Your task to perform on an android device: turn off notifications in google photos Image 0: 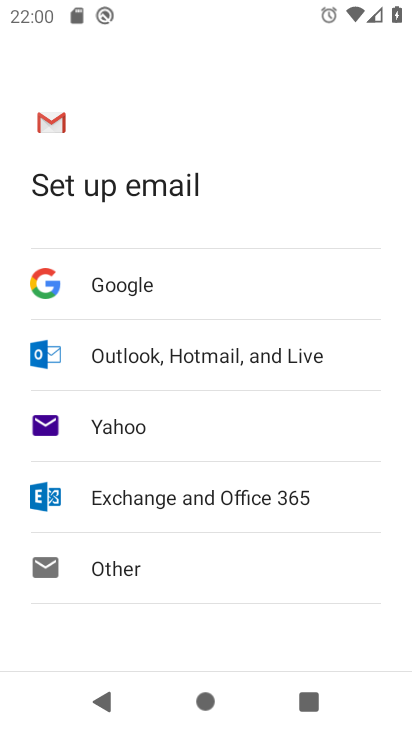
Step 0: press home button
Your task to perform on an android device: turn off notifications in google photos Image 1: 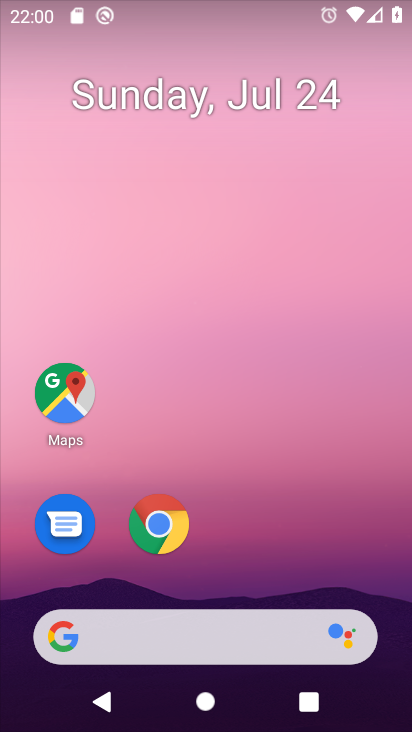
Step 1: drag from (285, 561) to (279, 79)
Your task to perform on an android device: turn off notifications in google photos Image 2: 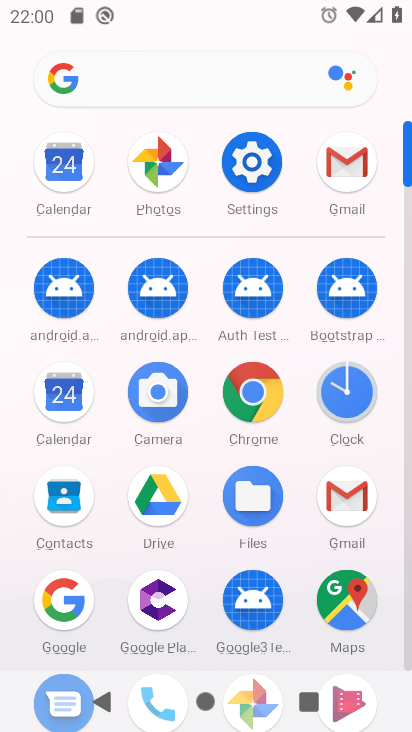
Step 2: click (347, 157)
Your task to perform on an android device: turn off notifications in google photos Image 3: 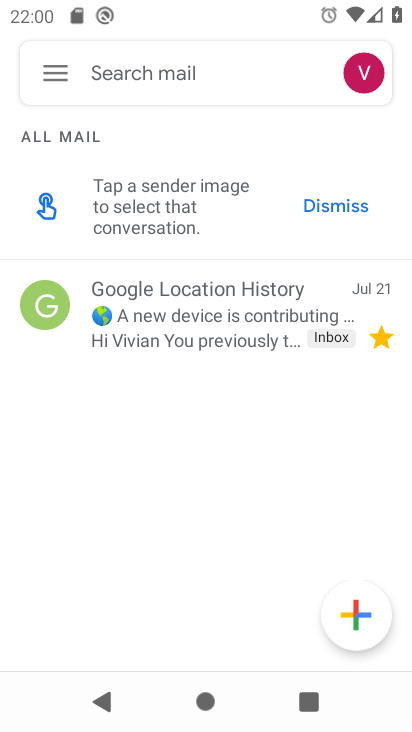
Step 3: click (64, 78)
Your task to perform on an android device: turn off notifications in google photos Image 4: 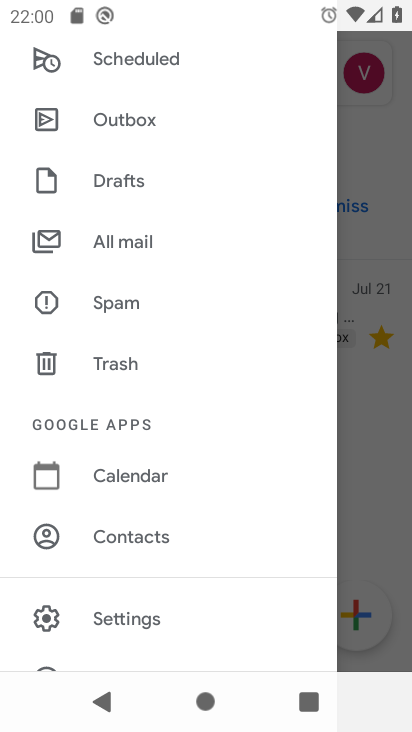
Step 4: click (136, 619)
Your task to perform on an android device: turn off notifications in google photos Image 5: 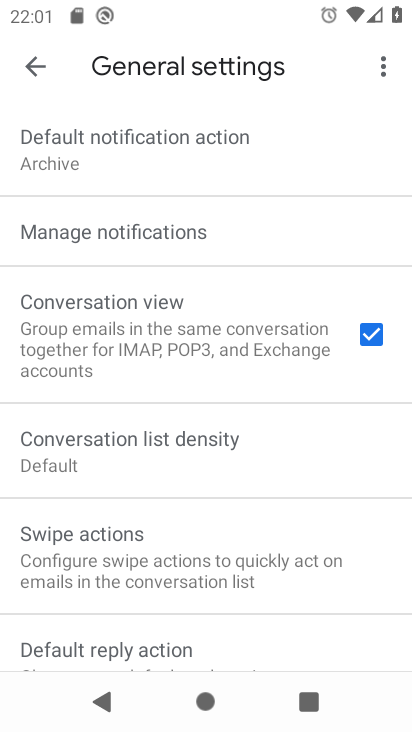
Step 5: press home button
Your task to perform on an android device: turn off notifications in google photos Image 6: 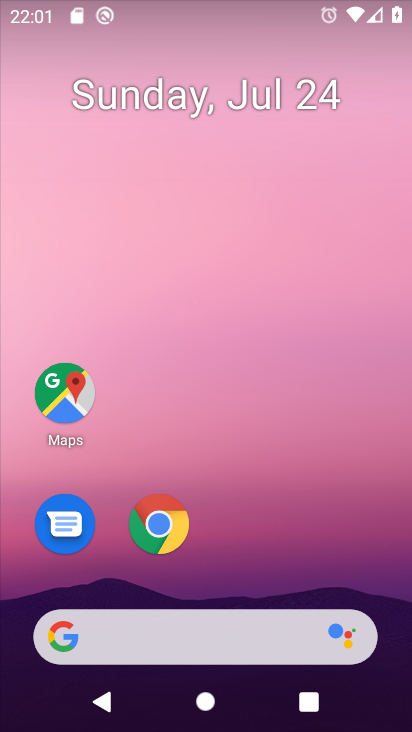
Step 6: drag from (277, 587) to (253, 11)
Your task to perform on an android device: turn off notifications in google photos Image 7: 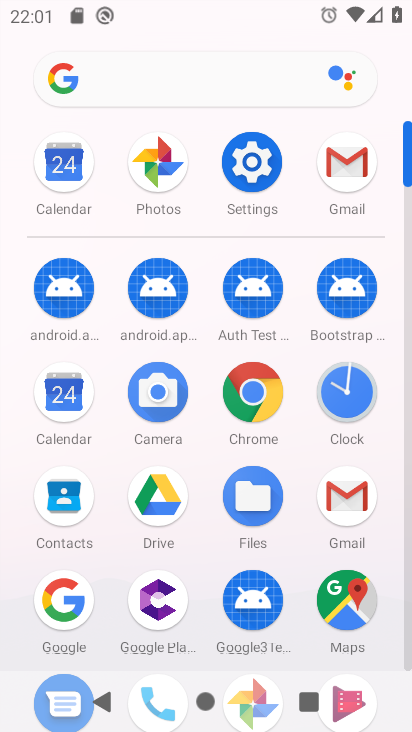
Step 7: click (152, 168)
Your task to perform on an android device: turn off notifications in google photos Image 8: 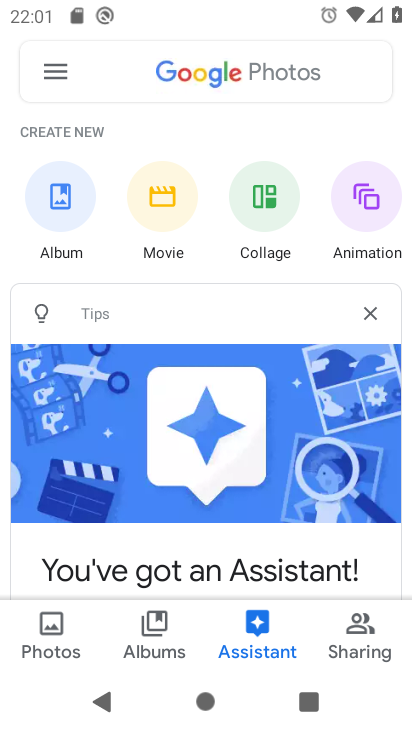
Step 8: click (58, 74)
Your task to perform on an android device: turn off notifications in google photos Image 9: 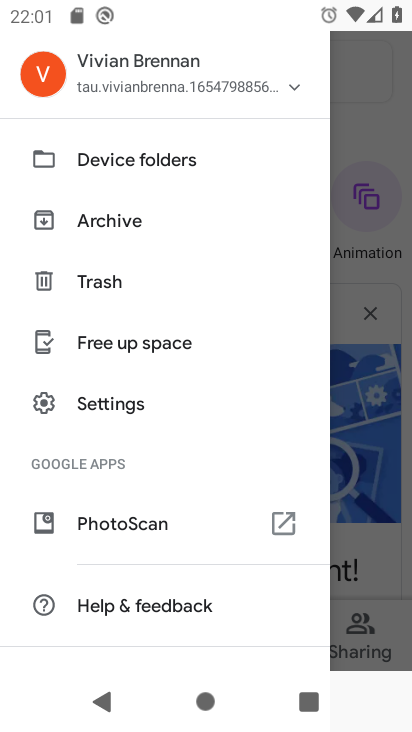
Step 9: click (124, 396)
Your task to perform on an android device: turn off notifications in google photos Image 10: 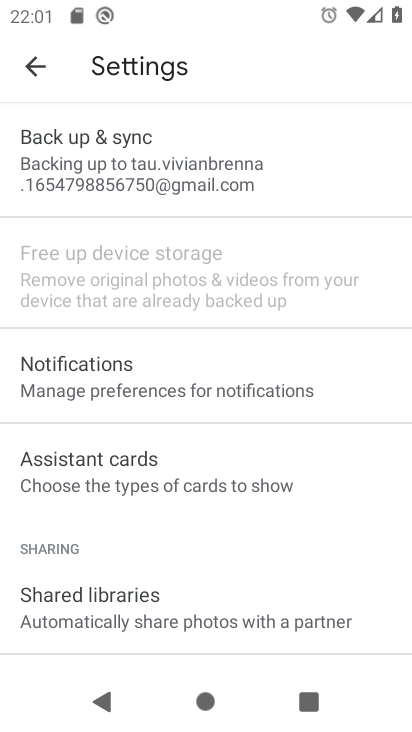
Step 10: click (170, 374)
Your task to perform on an android device: turn off notifications in google photos Image 11: 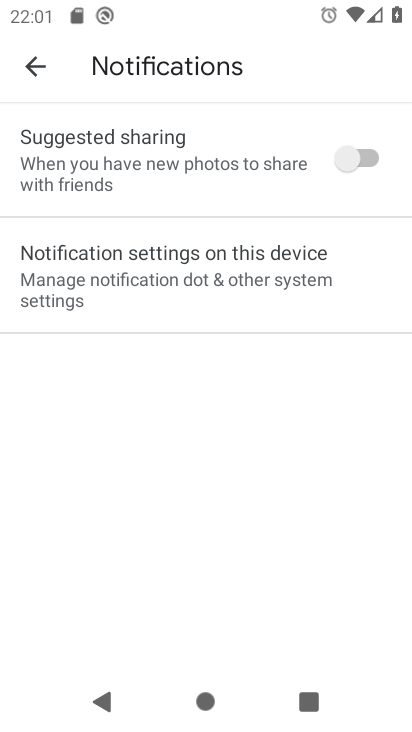
Step 11: click (169, 266)
Your task to perform on an android device: turn off notifications in google photos Image 12: 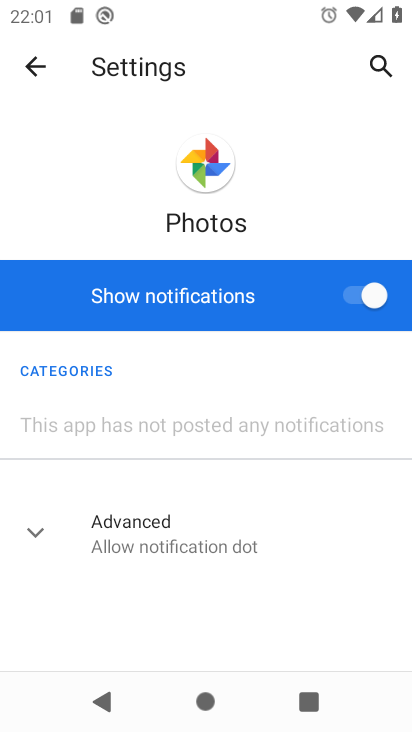
Step 12: click (371, 295)
Your task to perform on an android device: turn off notifications in google photos Image 13: 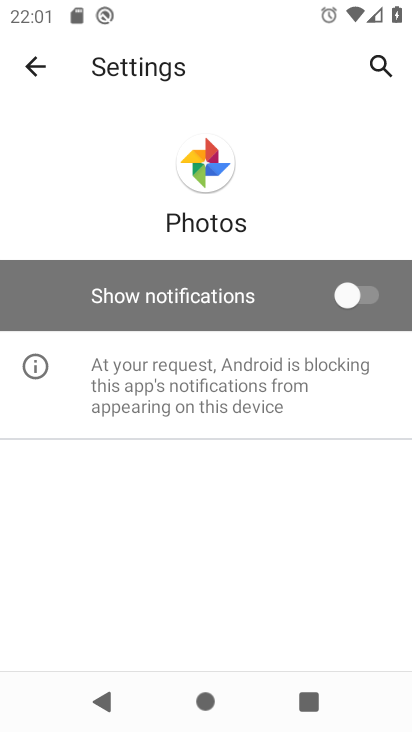
Step 13: task complete